Your task to perform on an android device: turn on the 24-hour format for clock Image 0: 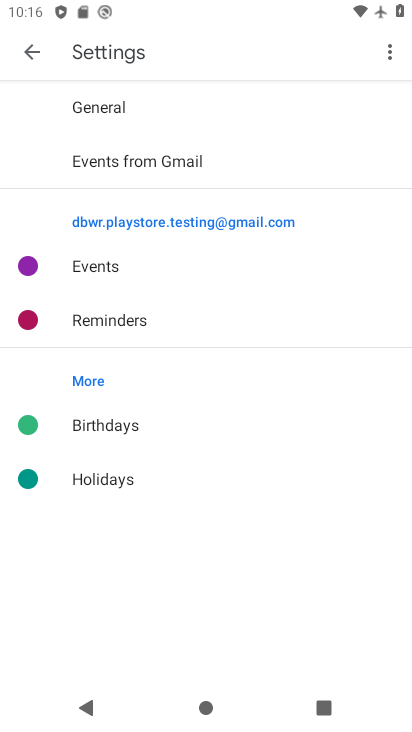
Step 0: press home button
Your task to perform on an android device: turn on the 24-hour format for clock Image 1: 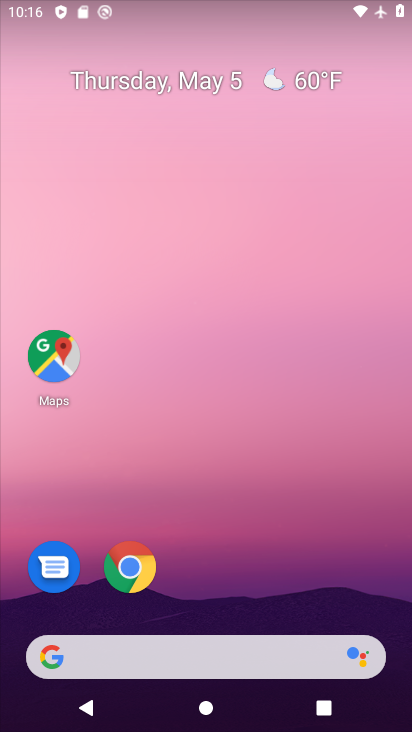
Step 1: drag from (203, 609) to (230, 110)
Your task to perform on an android device: turn on the 24-hour format for clock Image 2: 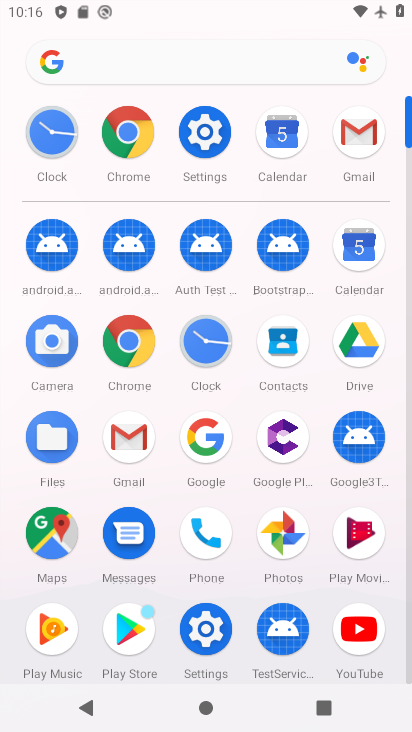
Step 2: click (49, 147)
Your task to perform on an android device: turn on the 24-hour format for clock Image 3: 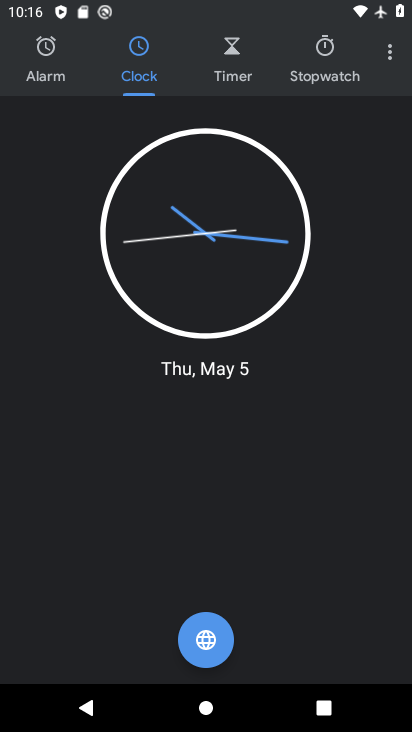
Step 3: click (393, 61)
Your task to perform on an android device: turn on the 24-hour format for clock Image 4: 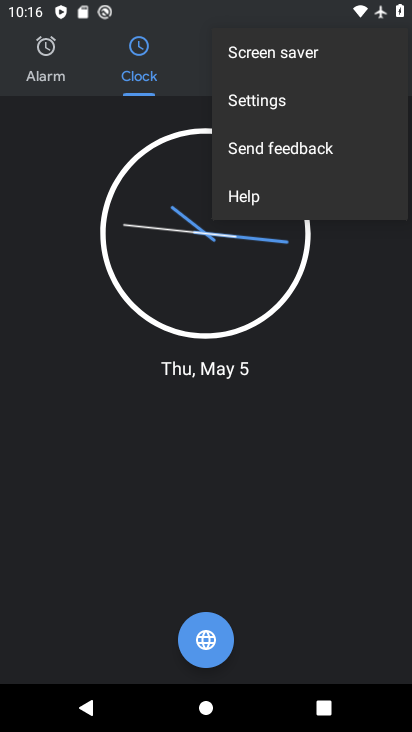
Step 4: click (258, 107)
Your task to perform on an android device: turn on the 24-hour format for clock Image 5: 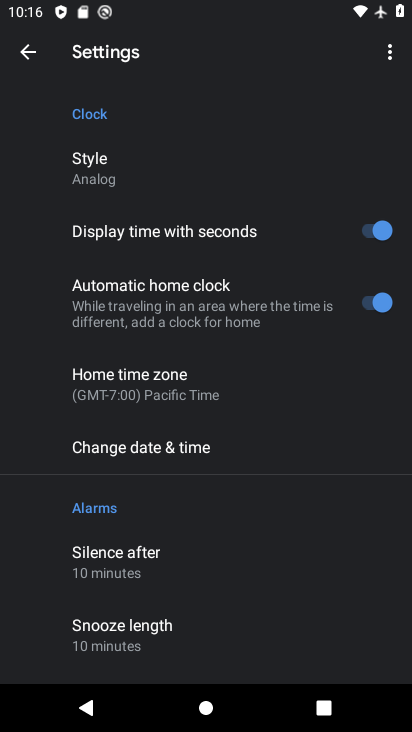
Step 5: click (181, 445)
Your task to perform on an android device: turn on the 24-hour format for clock Image 6: 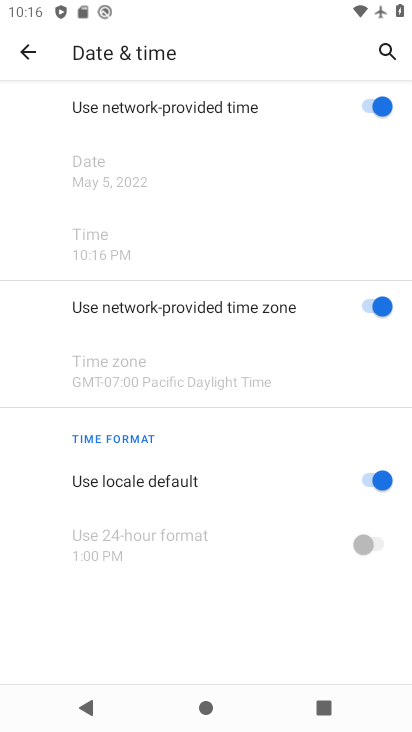
Step 6: click (365, 485)
Your task to perform on an android device: turn on the 24-hour format for clock Image 7: 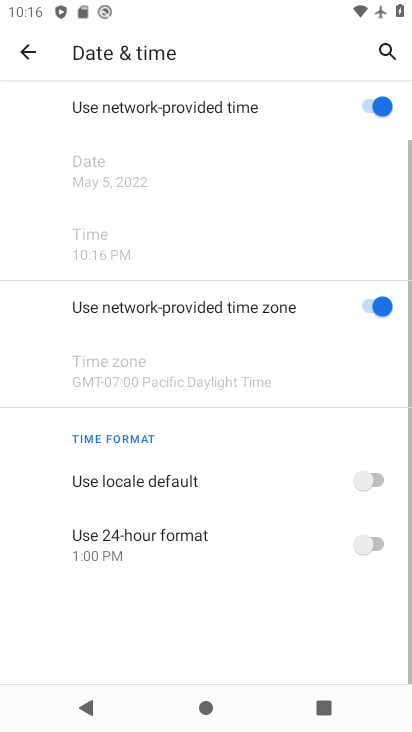
Step 7: click (373, 541)
Your task to perform on an android device: turn on the 24-hour format for clock Image 8: 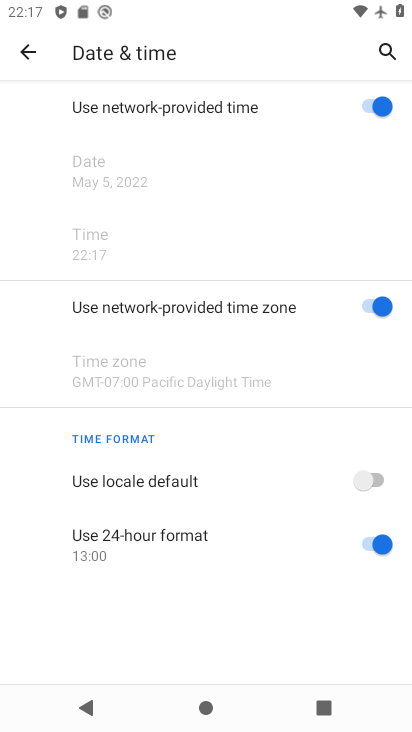
Step 8: task complete